Your task to perform on an android device: Go to Google maps Image 0: 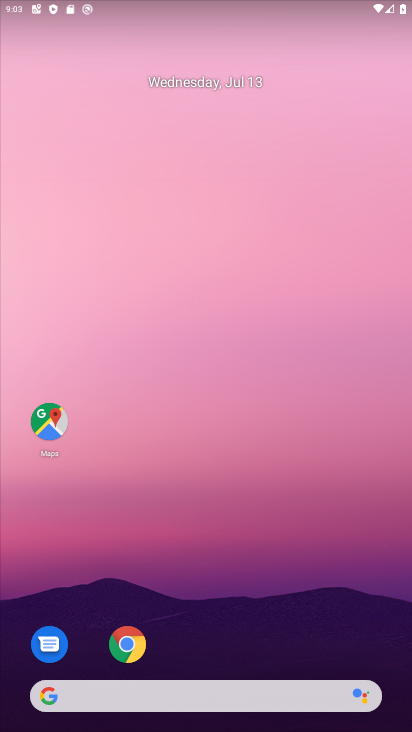
Step 0: drag from (208, 595) to (208, 52)
Your task to perform on an android device: Go to Google maps Image 1: 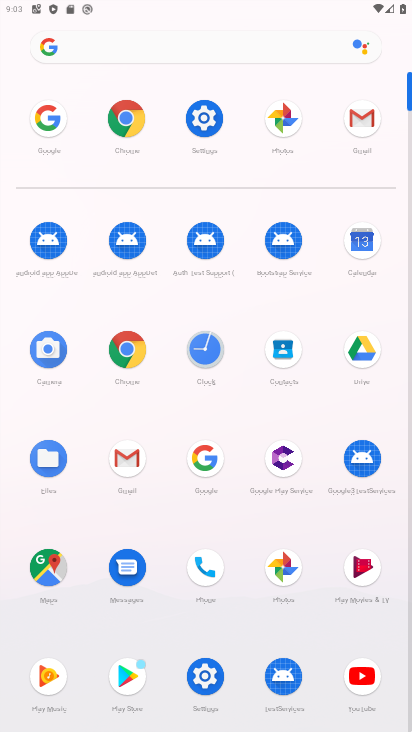
Step 1: click (49, 567)
Your task to perform on an android device: Go to Google maps Image 2: 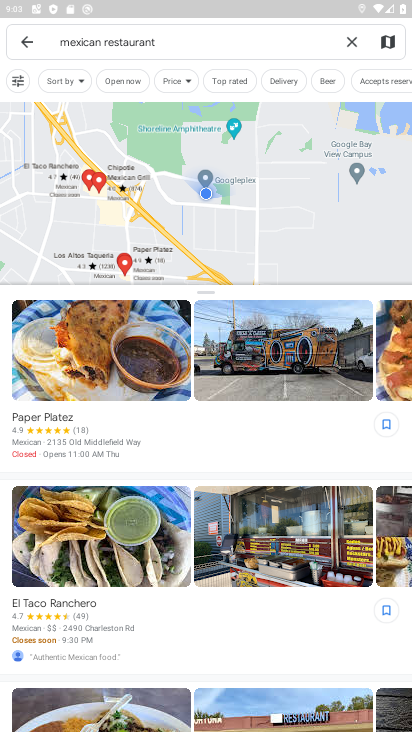
Step 2: task complete